Your task to perform on an android device: toggle improve location accuracy Image 0: 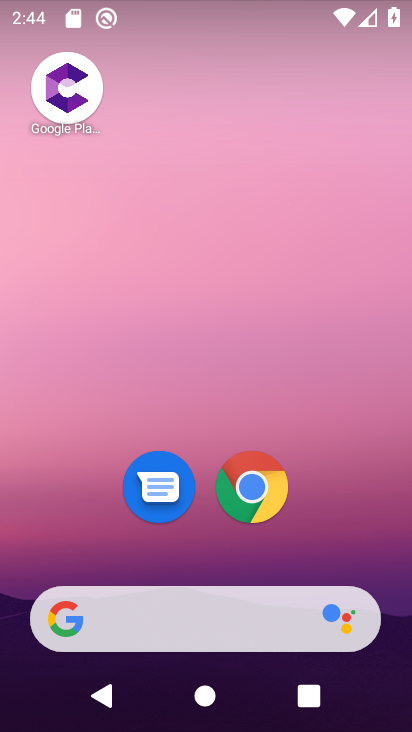
Step 0: drag from (400, 600) to (336, 127)
Your task to perform on an android device: toggle improve location accuracy Image 1: 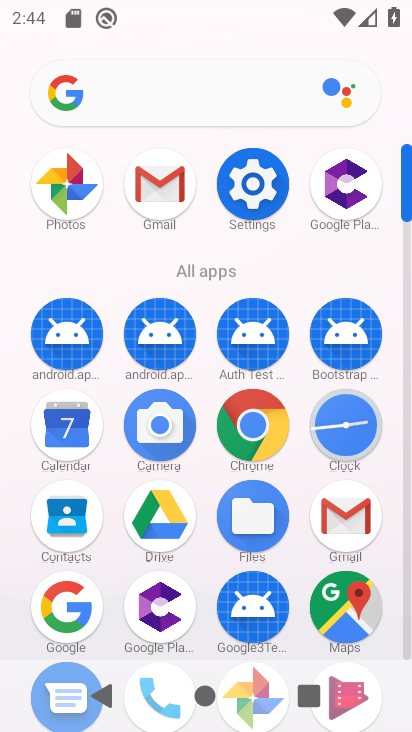
Step 1: click (271, 178)
Your task to perform on an android device: toggle improve location accuracy Image 2: 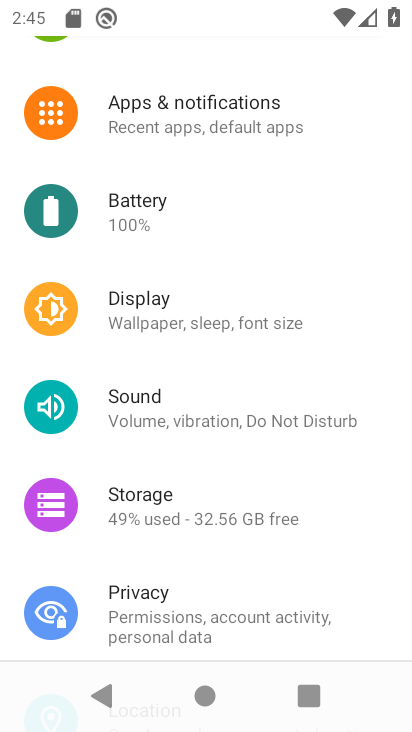
Step 2: drag from (265, 603) to (188, 4)
Your task to perform on an android device: toggle improve location accuracy Image 3: 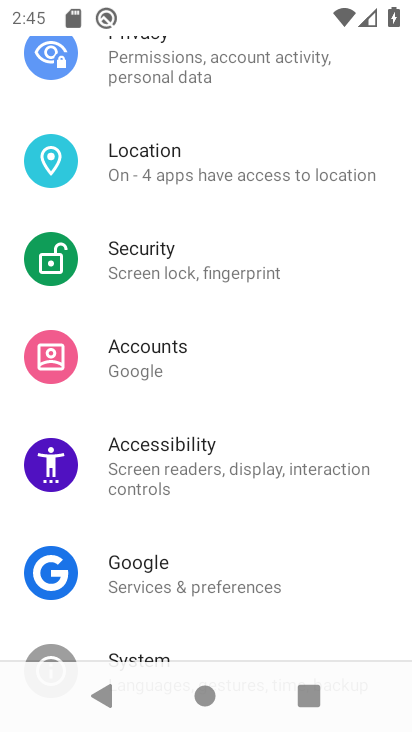
Step 3: click (234, 172)
Your task to perform on an android device: toggle improve location accuracy Image 4: 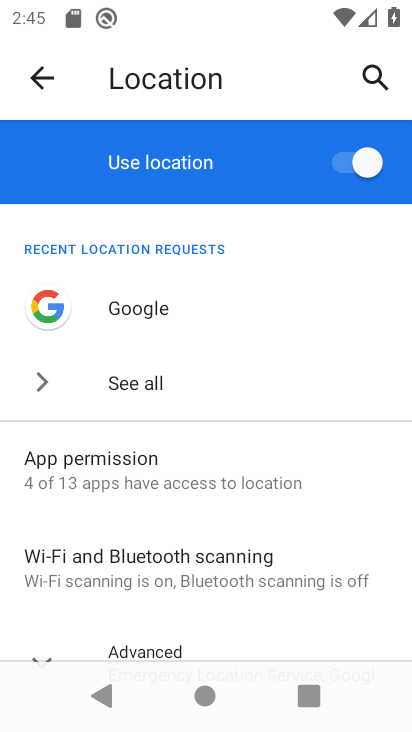
Step 4: drag from (307, 553) to (260, 231)
Your task to perform on an android device: toggle improve location accuracy Image 5: 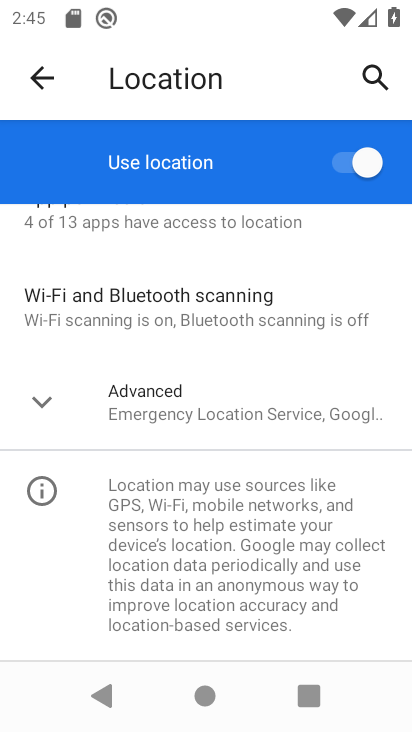
Step 5: click (292, 402)
Your task to perform on an android device: toggle improve location accuracy Image 6: 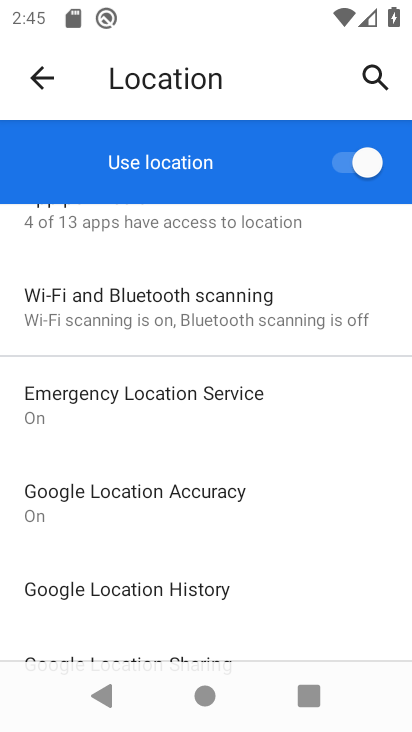
Step 6: click (272, 494)
Your task to perform on an android device: toggle improve location accuracy Image 7: 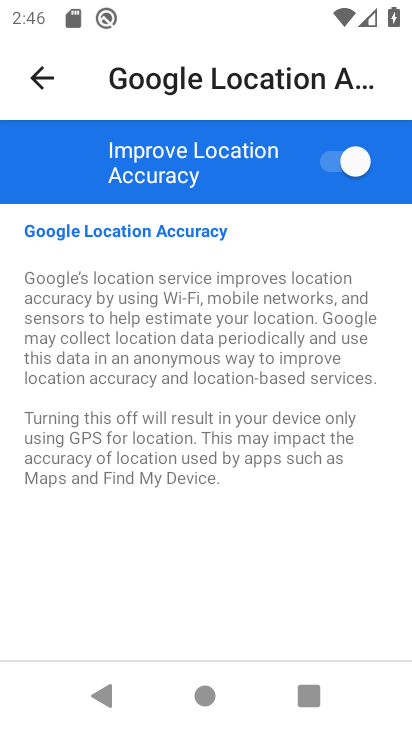
Step 7: click (342, 171)
Your task to perform on an android device: toggle improve location accuracy Image 8: 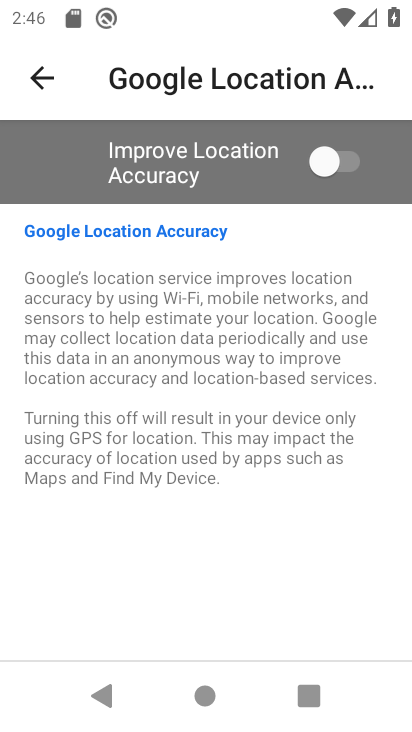
Step 8: task complete